Your task to perform on an android device: When is my next meeting? Image 0: 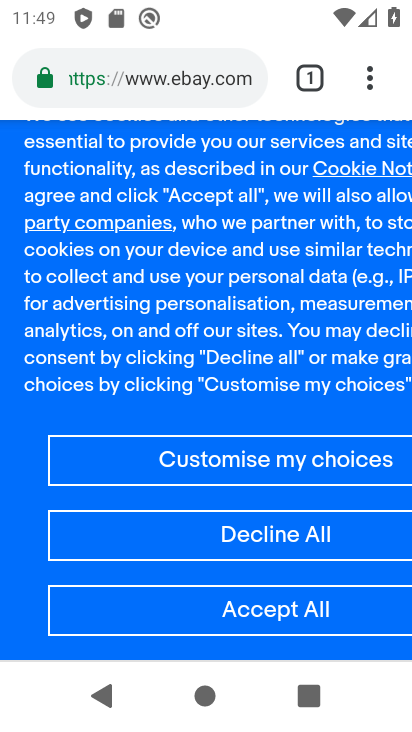
Step 0: press home button
Your task to perform on an android device: When is my next meeting? Image 1: 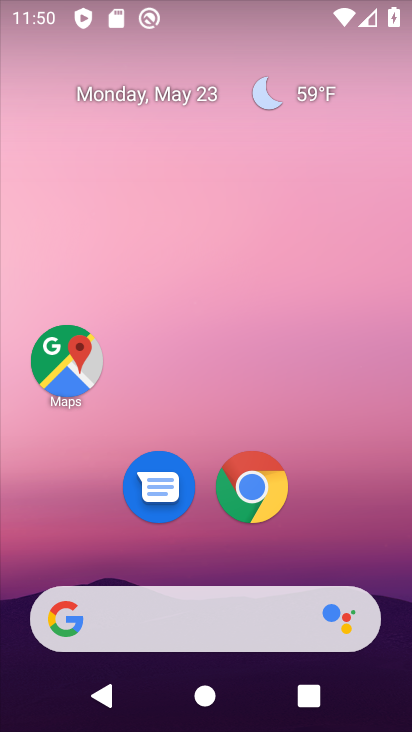
Step 1: drag from (209, 567) to (168, 56)
Your task to perform on an android device: When is my next meeting? Image 2: 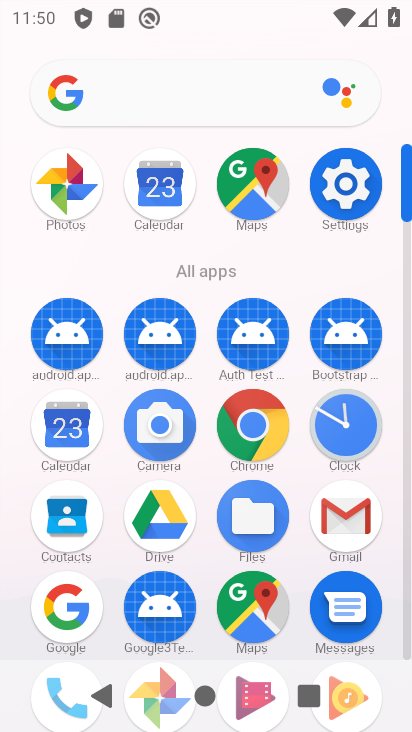
Step 2: click (61, 440)
Your task to perform on an android device: When is my next meeting? Image 3: 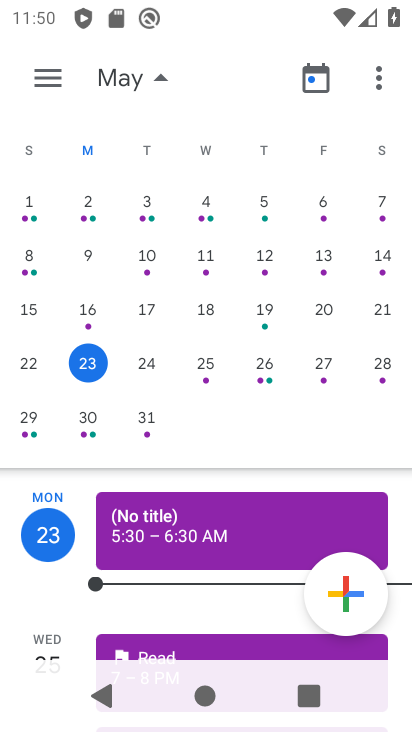
Step 3: task complete